Your task to perform on an android device: Search for seafood restaurants on Google Maps Image 0: 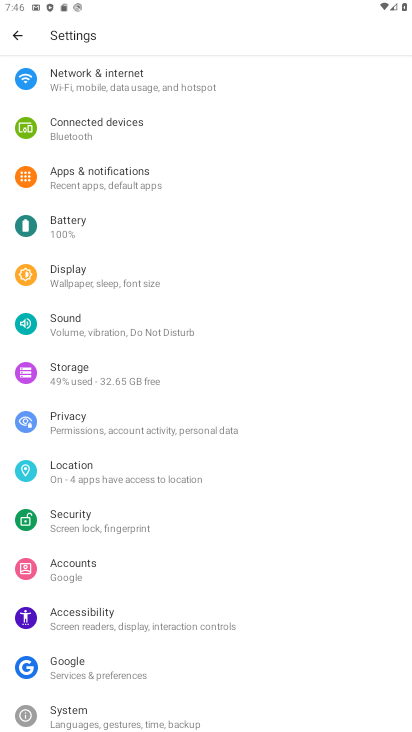
Step 0: press home button
Your task to perform on an android device: Search for seafood restaurants on Google Maps Image 1: 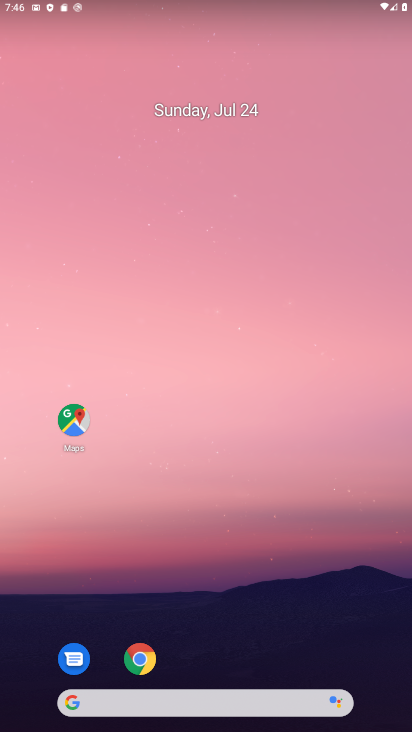
Step 1: click (64, 426)
Your task to perform on an android device: Search for seafood restaurants on Google Maps Image 2: 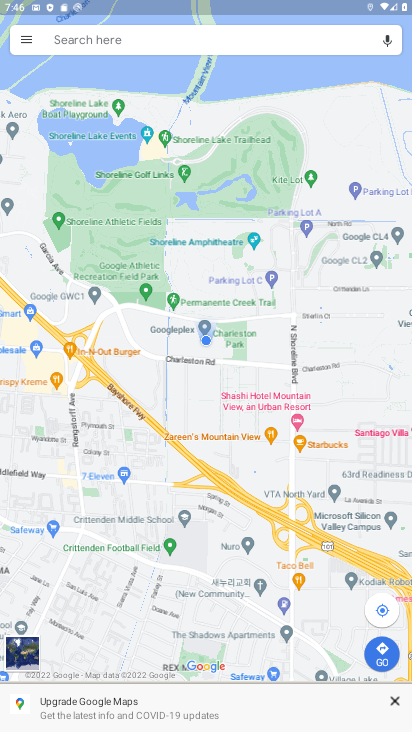
Step 2: click (102, 49)
Your task to perform on an android device: Search for seafood restaurants on Google Maps Image 3: 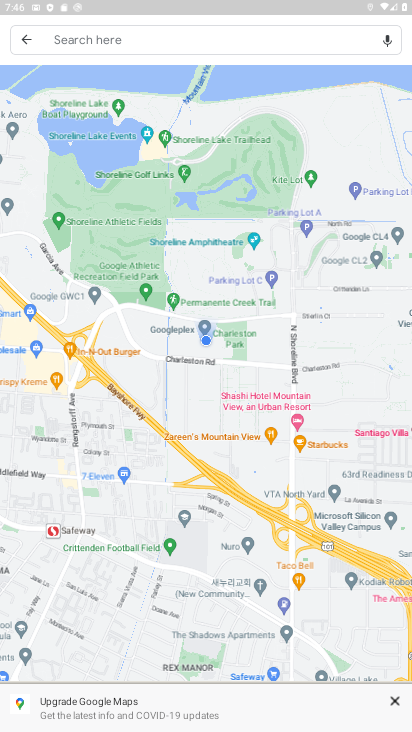
Step 3: click (102, 49)
Your task to perform on an android device: Search for seafood restaurants on Google Maps Image 4: 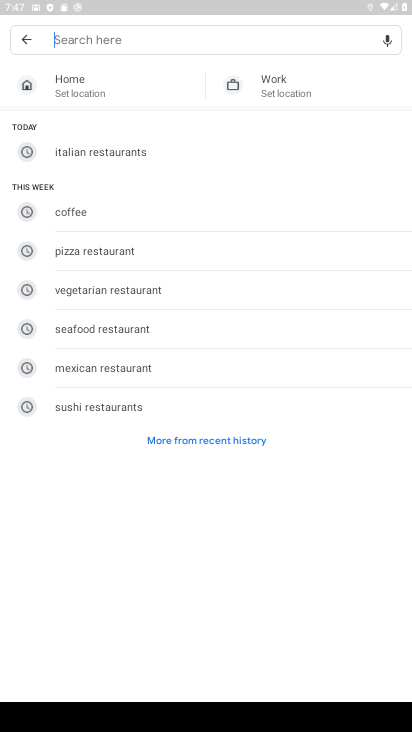
Step 4: type " seafood restaurants"
Your task to perform on an android device: Search for seafood restaurants on Google Maps Image 5: 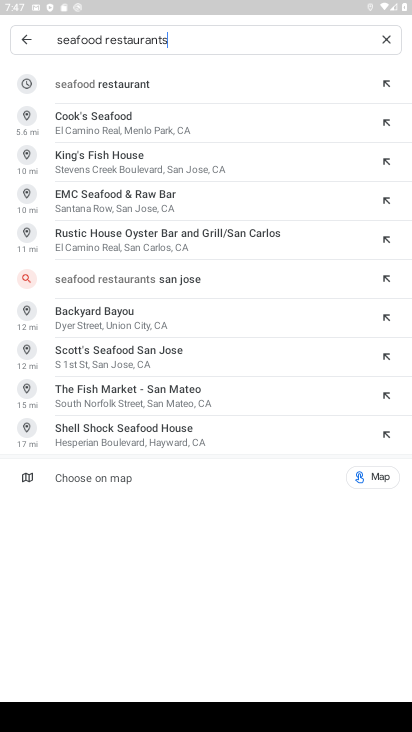
Step 5: click (80, 84)
Your task to perform on an android device: Search for seafood restaurants on Google Maps Image 6: 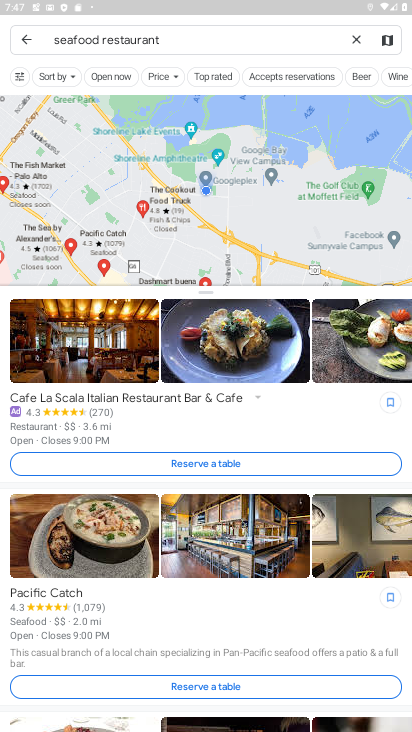
Step 6: task complete